Your task to perform on an android device: check storage Image 0: 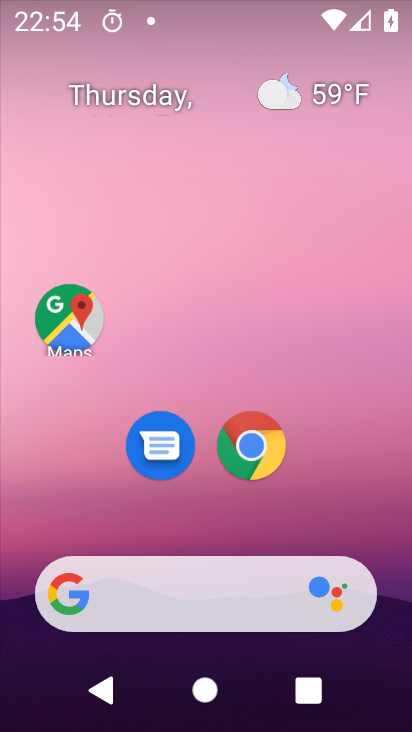
Step 0: drag from (201, 607) to (234, 168)
Your task to perform on an android device: check storage Image 1: 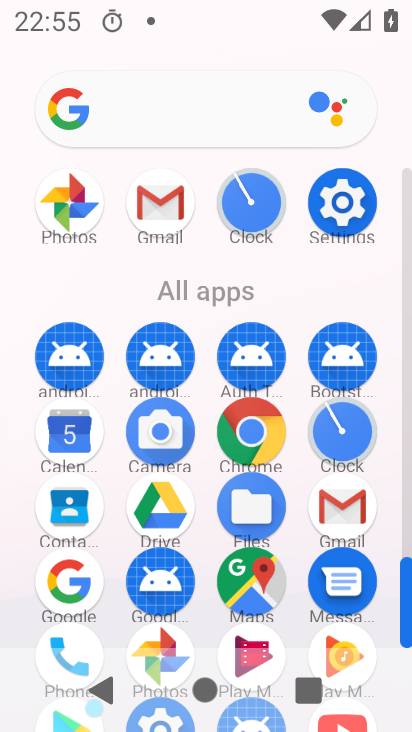
Step 1: click (361, 181)
Your task to perform on an android device: check storage Image 2: 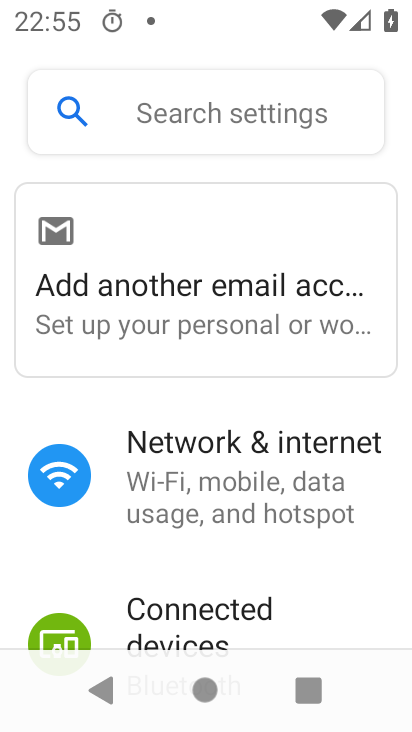
Step 2: drag from (199, 528) to (268, 113)
Your task to perform on an android device: check storage Image 3: 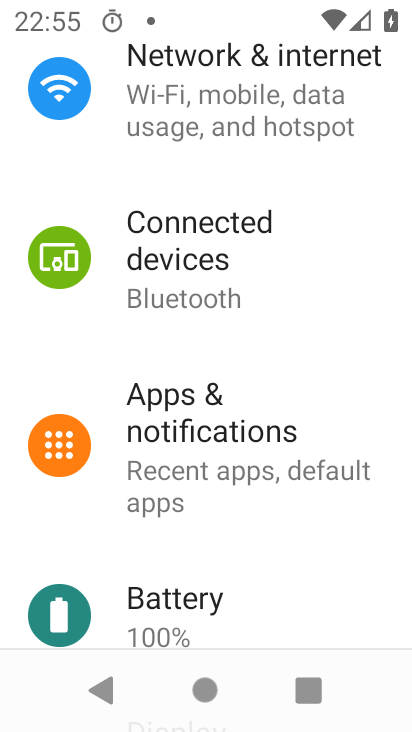
Step 3: drag from (274, 554) to (306, 124)
Your task to perform on an android device: check storage Image 4: 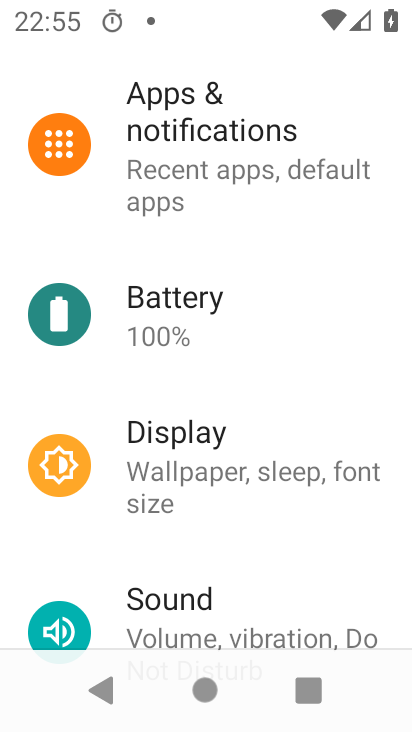
Step 4: drag from (209, 489) to (237, 237)
Your task to perform on an android device: check storage Image 5: 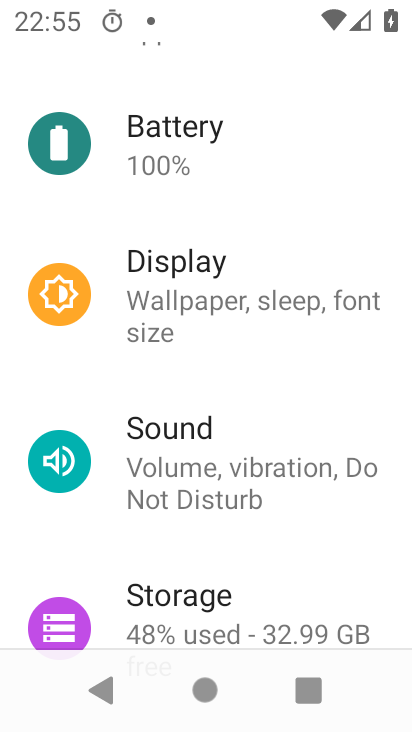
Step 5: click (208, 613)
Your task to perform on an android device: check storage Image 6: 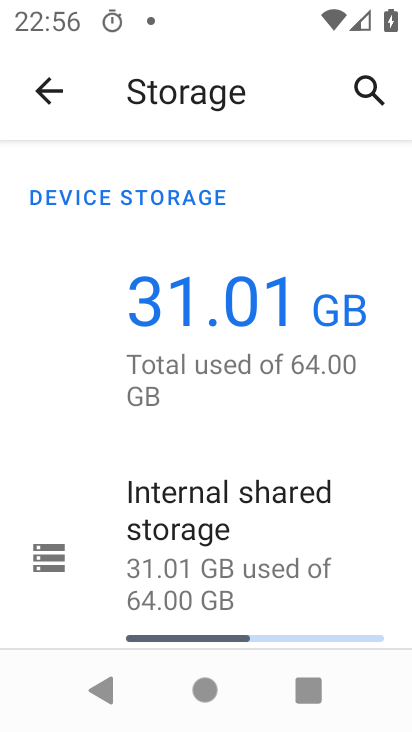
Step 6: task complete